Your task to perform on an android device: Show me productivity apps on the Play Store Image 0: 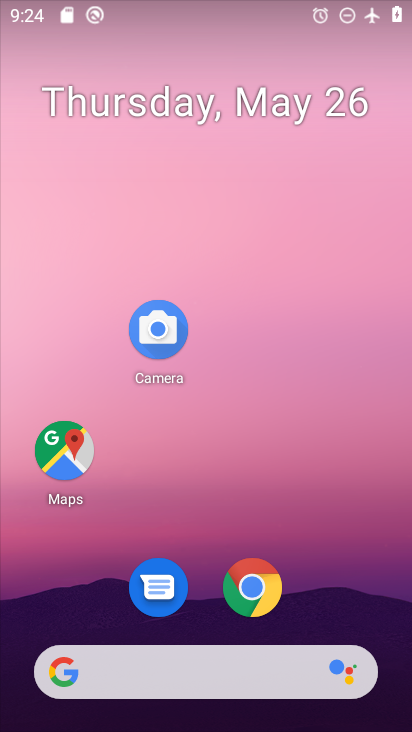
Step 0: drag from (205, 628) to (247, 205)
Your task to perform on an android device: Show me productivity apps on the Play Store Image 1: 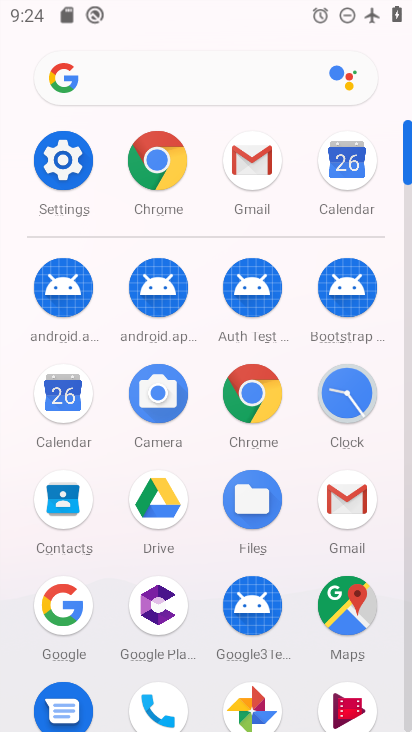
Step 1: drag from (211, 635) to (221, 225)
Your task to perform on an android device: Show me productivity apps on the Play Store Image 2: 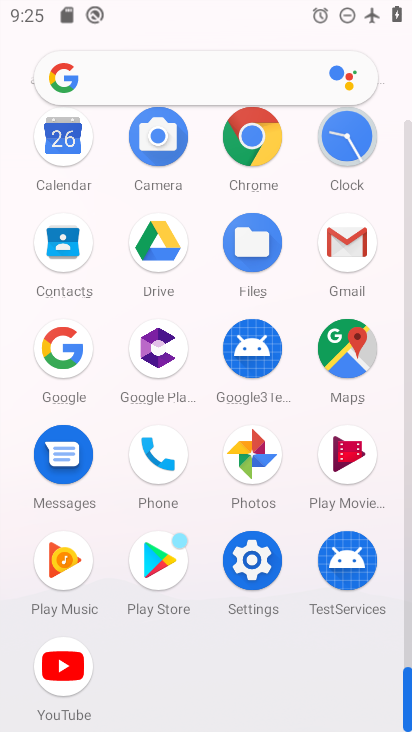
Step 2: click (164, 547)
Your task to perform on an android device: Show me productivity apps on the Play Store Image 3: 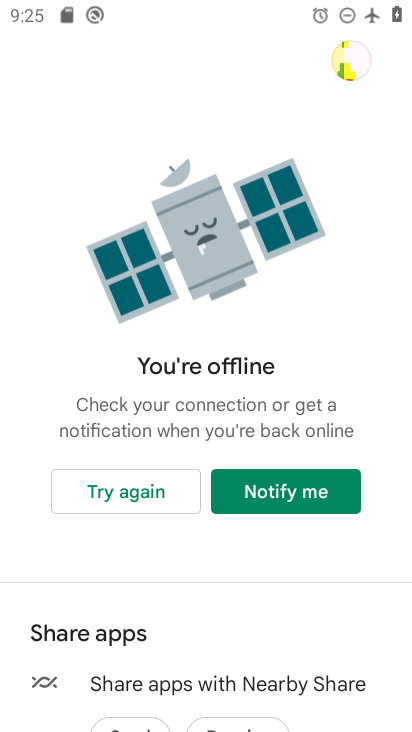
Step 3: task complete